Your task to perform on an android device: Open the calendar app, open the side menu, and click the "Day" option Image 0: 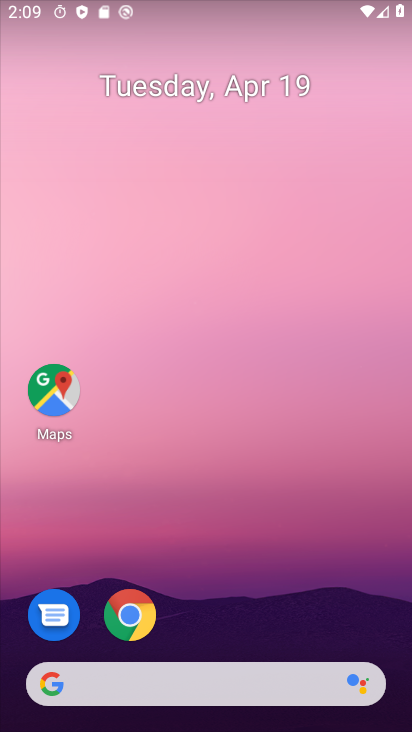
Step 0: drag from (169, 642) to (207, 350)
Your task to perform on an android device: Open the calendar app, open the side menu, and click the "Day" option Image 1: 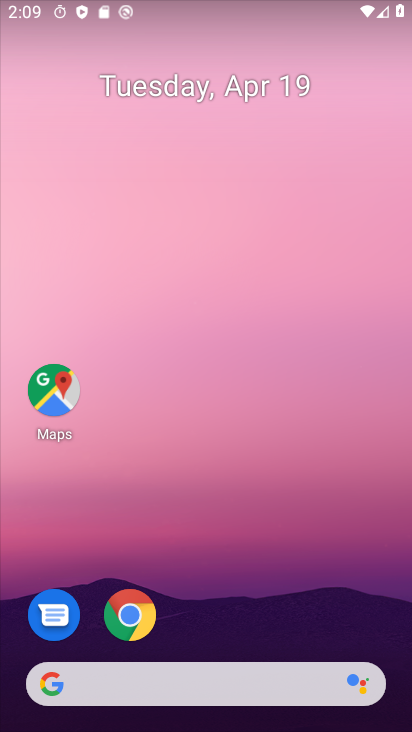
Step 1: drag from (221, 654) to (218, 570)
Your task to perform on an android device: Open the calendar app, open the side menu, and click the "Day" option Image 2: 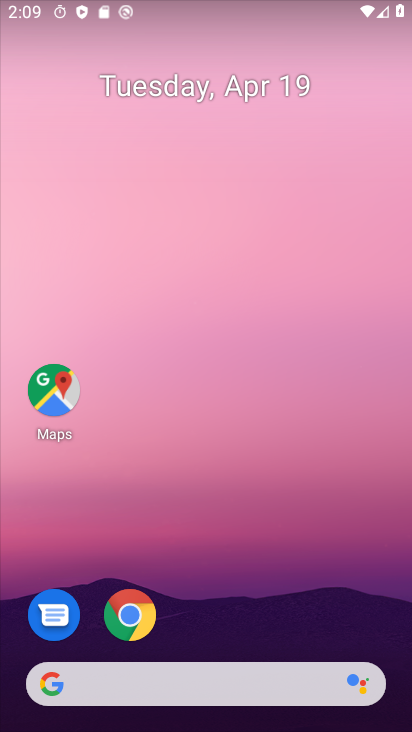
Step 2: click (230, 629)
Your task to perform on an android device: Open the calendar app, open the side menu, and click the "Day" option Image 3: 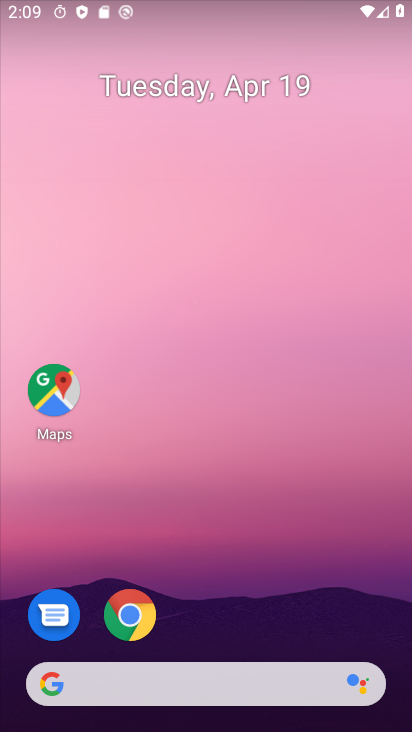
Step 3: drag from (245, 672) to (374, 569)
Your task to perform on an android device: Open the calendar app, open the side menu, and click the "Day" option Image 4: 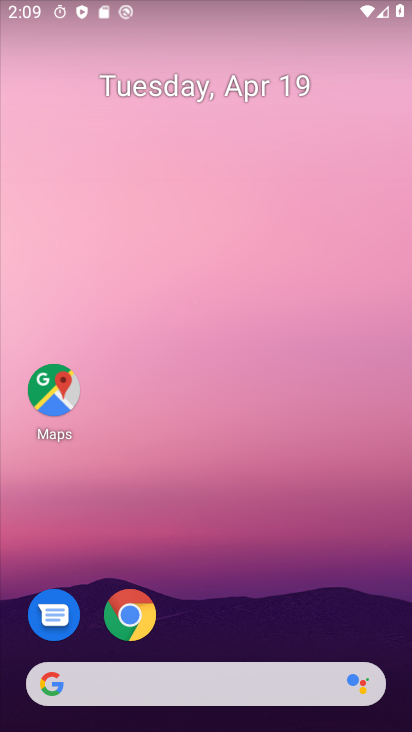
Step 4: drag from (253, 561) to (236, 600)
Your task to perform on an android device: Open the calendar app, open the side menu, and click the "Day" option Image 5: 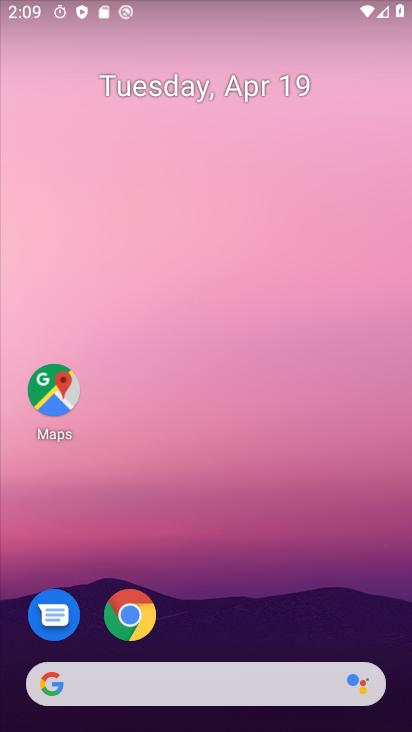
Step 5: drag from (198, 633) to (378, 9)
Your task to perform on an android device: Open the calendar app, open the side menu, and click the "Day" option Image 6: 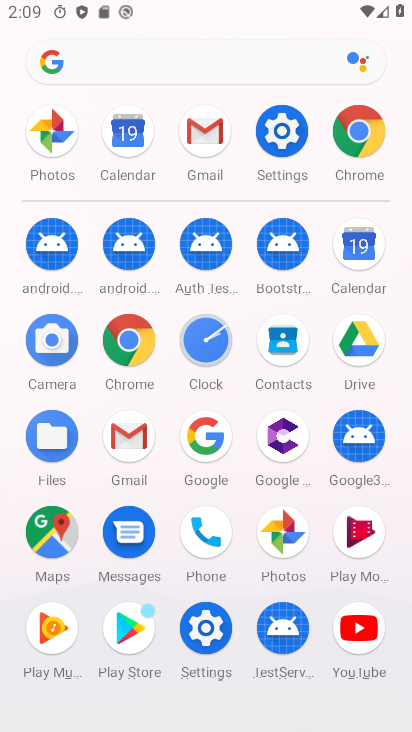
Step 6: click (360, 241)
Your task to perform on an android device: Open the calendar app, open the side menu, and click the "Day" option Image 7: 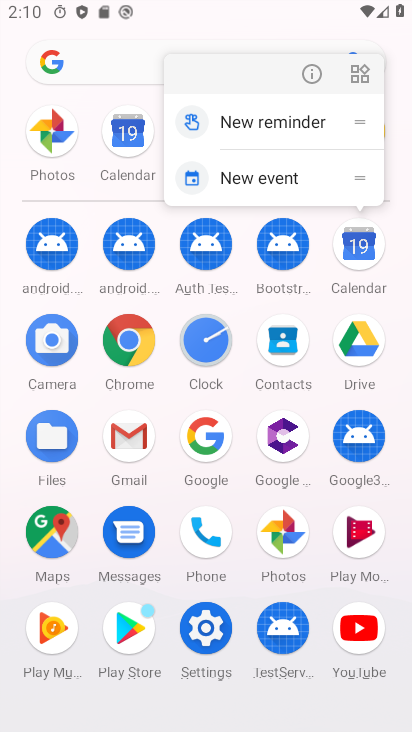
Step 7: click (302, 90)
Your task to perform on an android device: Open the calendar app, open the side menu, and click the "Day" option Image 8: 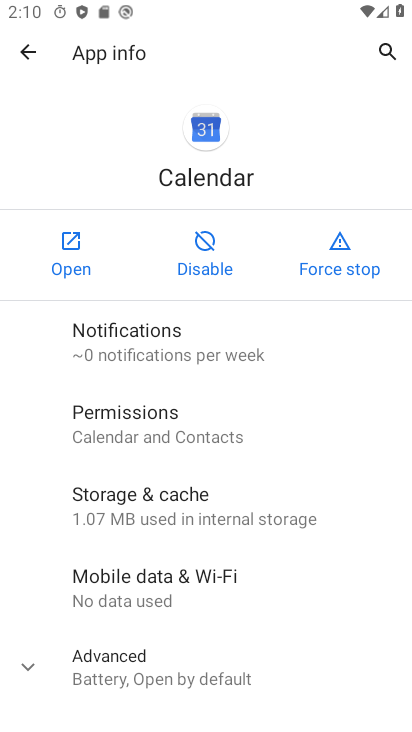
Step 8: click (38, 260)
Your task to perform on an android device: Open the calendar app, open the side menu, and click the "Day" option Image 9: 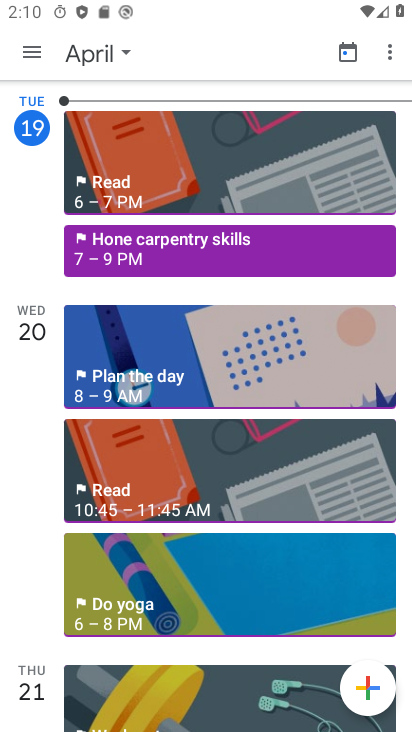
Step 9: click (24, 44)
Your task to perform on an android device: Open the calendar app, open the side menu, and click the "Day" option Image 10: 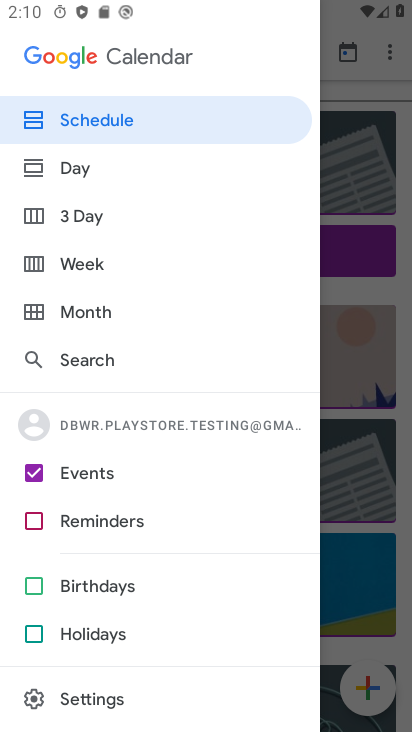
Step 10: click (89, 182)
Your task to perform on an android device: Open the calendar app, open the side menu, and click the "Day" option Image 11: 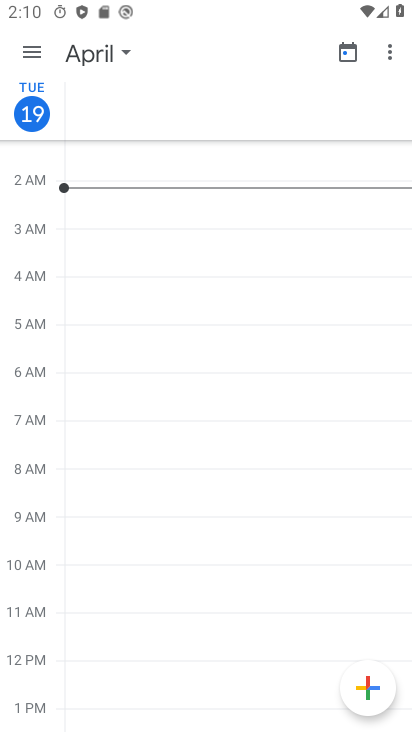
Step 11: task complete